Your task to perform on an android device: read, delete, or share a saved page in the chrome app Image 0: 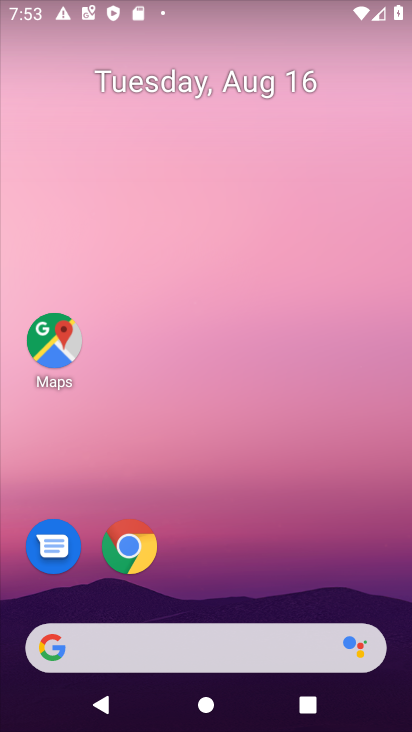
Step 0: click (127, 543)
Your task to perform on an android device: read, delete, or share a saved page in the chrome app Image 1: 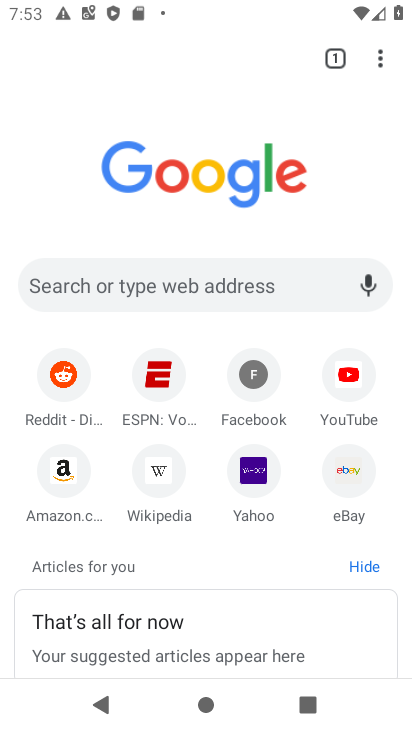
Step 1: click (383, 72)
Your task to perform on an android device: read, delete, or share a saved page in the chrome app Image 2: 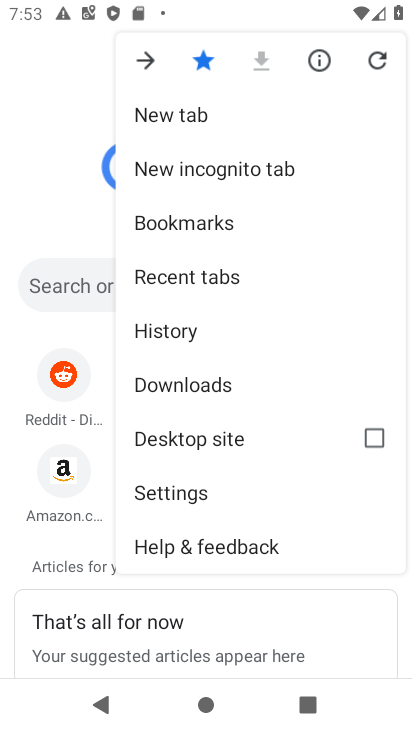
Step 2: click (210, 386)
Your task to perform on an android device: read, delete, or share a saved page in the chrome app Image 3: 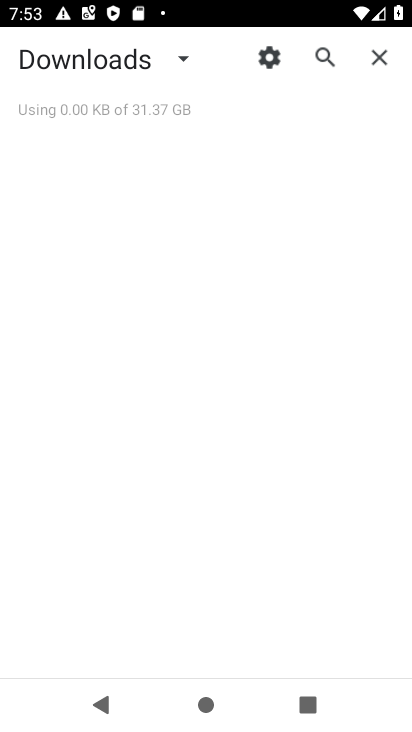
Step 3: task complete